Your task to perform on an android device: What's the weather going to be this weekend? Image 0: 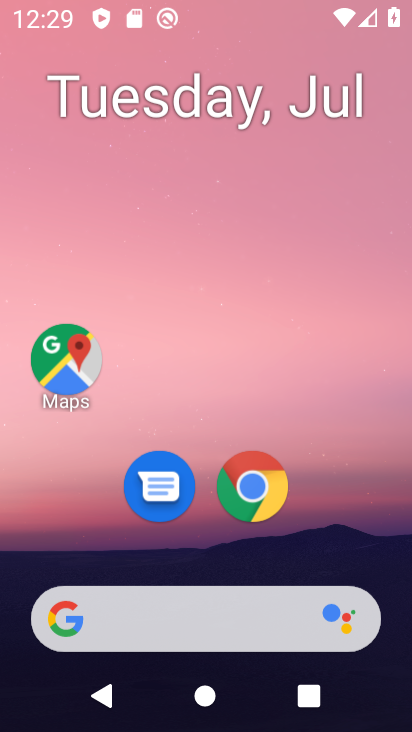
Step 0: press home button
Your task to perform on an android device: What's the weather going to be this weekend? Image 1: 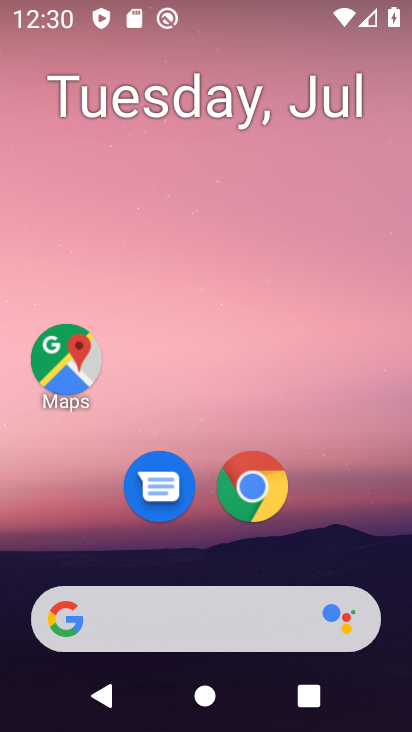
Step 1: drag from (330, 537) to (363, 134)
Your task to perform on an android device: What's the weather going to be this weekend? Image 2: 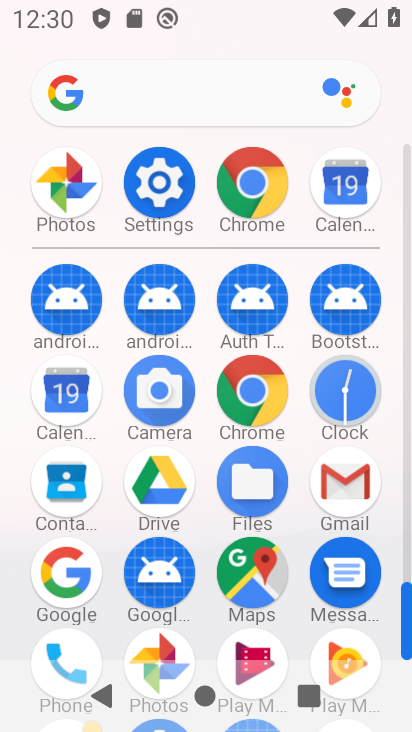
Step 2: click (230, 103)
Your task to perform on an android device: What's the weather going to be this weekend? Image 3: 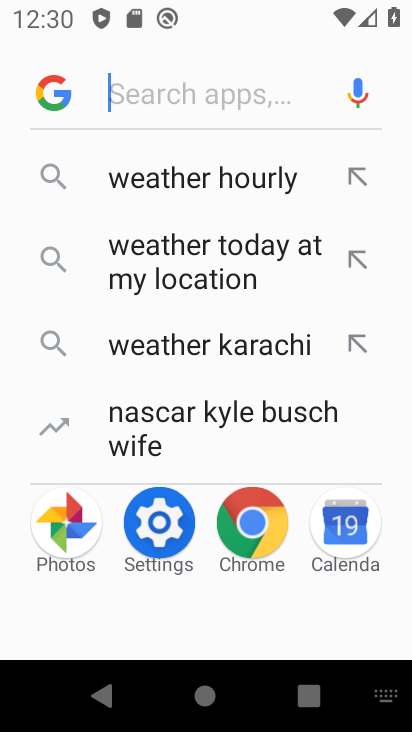
Step 3: type "weather"
Your task to perform on an android device: What's the weather going to be this weekend? Image 4: 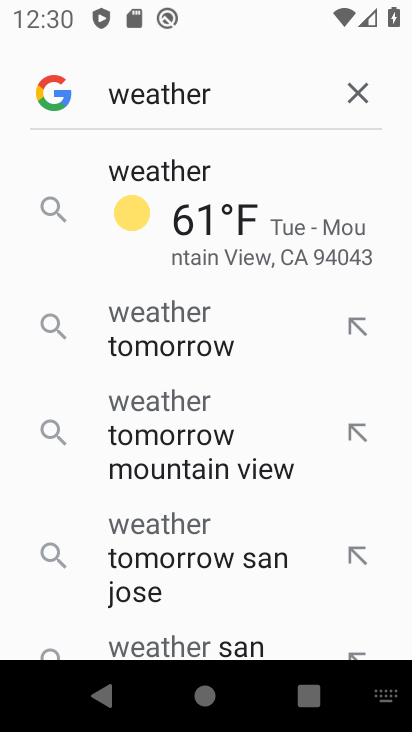
Step 4: click (175, 206)
Your task to perform on an android device: What's the weather going to be this weekend? Image 5: 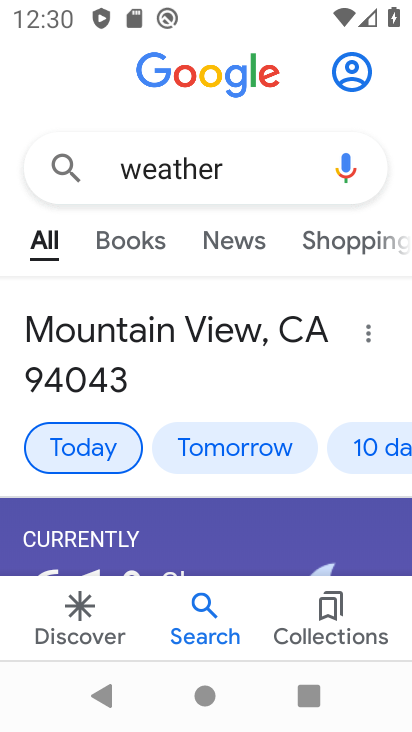
Step 5: click (376, 444)
Your task to perform on an android device: What's the weather going to be this weekend? Image 6: 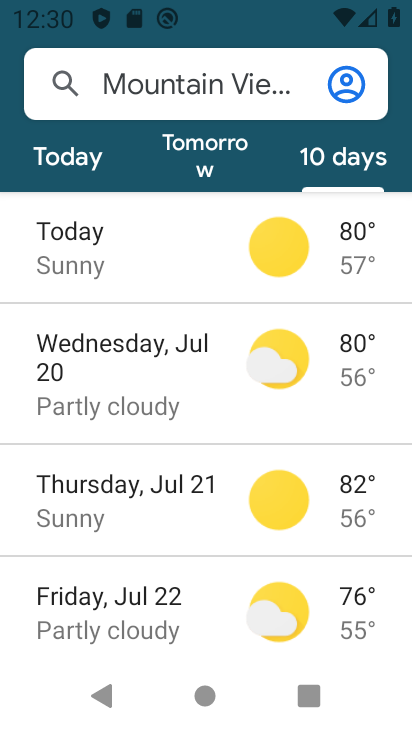
Step 6: drag from (184, 542) to (205, 363)
Your task to perform on an android device: What's the weather going to be this weekend? Image 7: 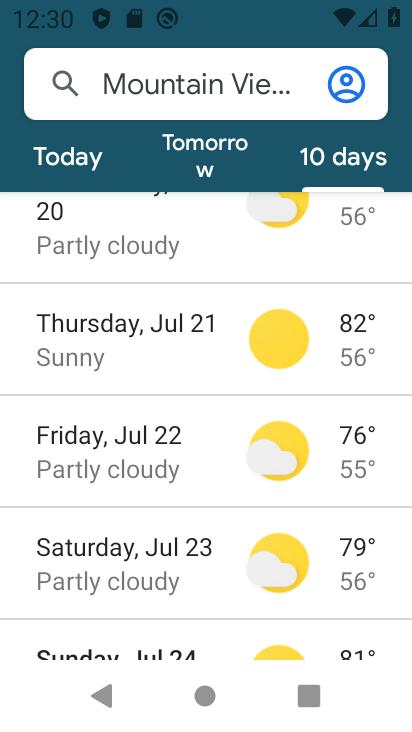
Step 7: drag from (219, 604) to (229, 402)
Your task to perform on an android device: What's the weather going to be this weekend? Image 8: 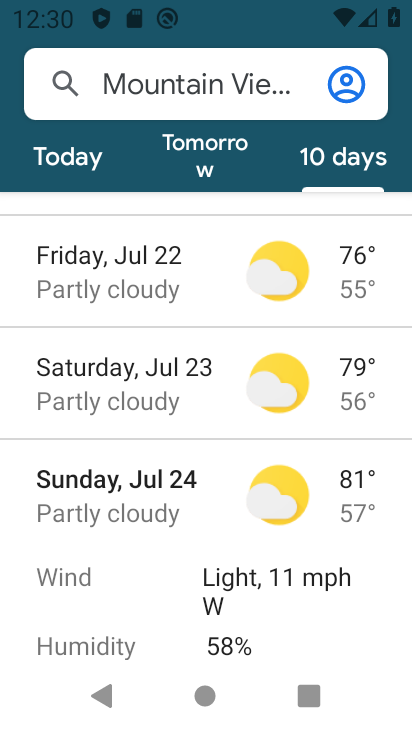
Step 8: click (168, 412)
Your task to perform on an android device: What's the weather going to be this weekend? Image 9: 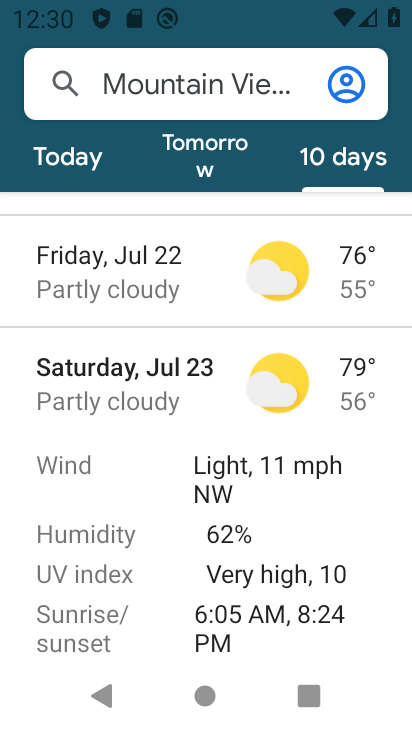
Step 9: task complete